Your task to perform on an android device: change timer sound Image 0: 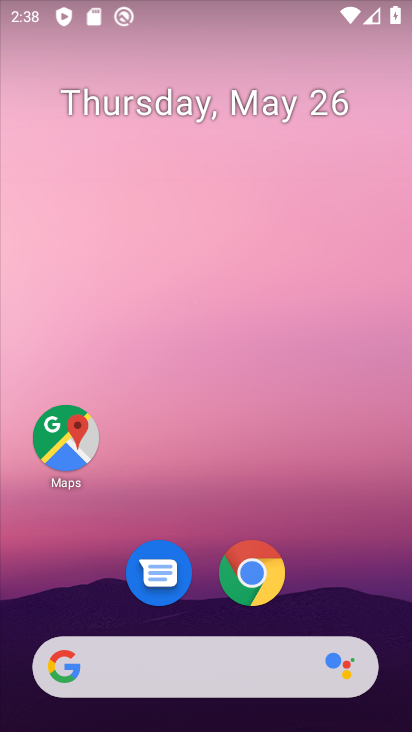
Step 0: drag from (227, 660) to (234, 151)
Your task to perform on an android device: change timer sound Image 1: 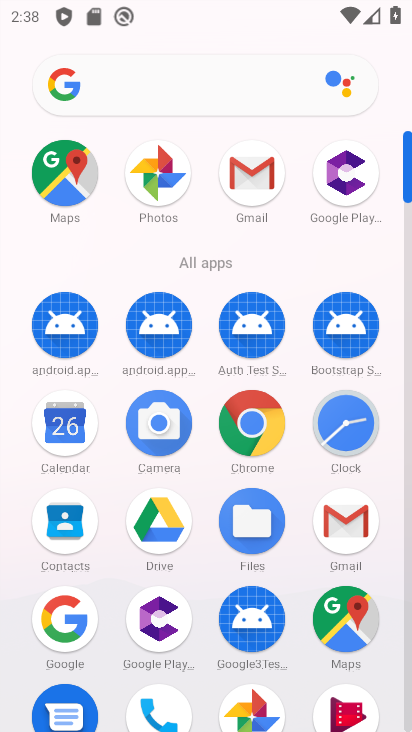
Step 1: drag from (209, 605) to (224, 184)
Your task to perform on an android device: change timer sound Image 2: 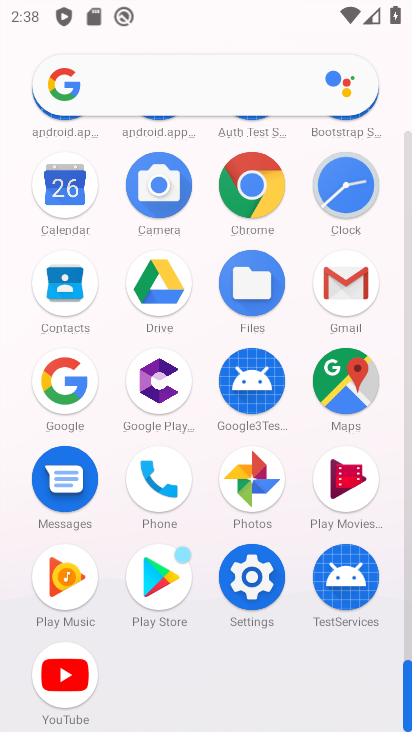
Step 2: click (363, 179)
Your task to perform on an android device: change timer sound Image 3: 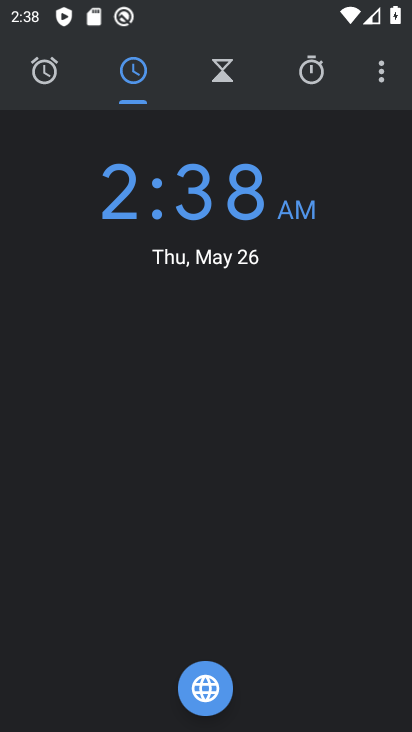
Step 3: click (376, 71)
Your task to perform on an android device: change timer sound Image 4: 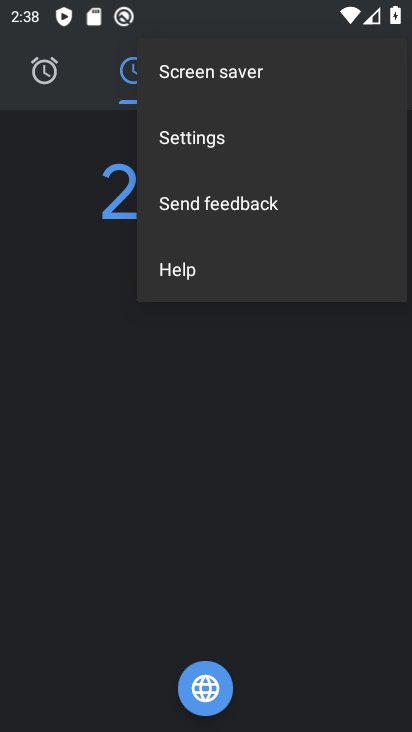
Step 4: click (200, 140)
Your task to perform on an android device: change timer sound Image 5: 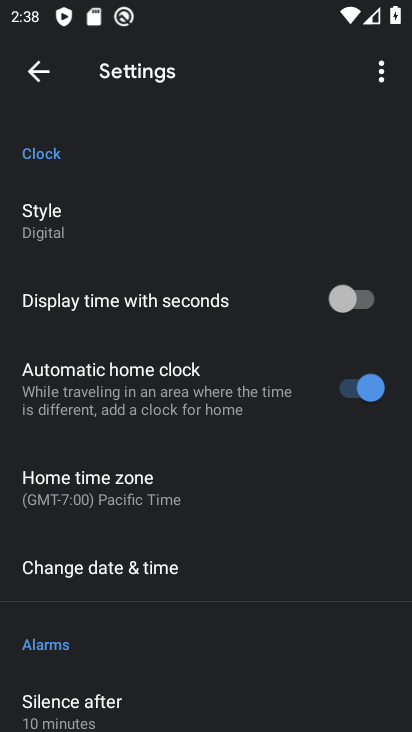
Step 5: drag from (192, 619) to (272, 7)
Your task to perform on an android device: change timer sound Image 6: 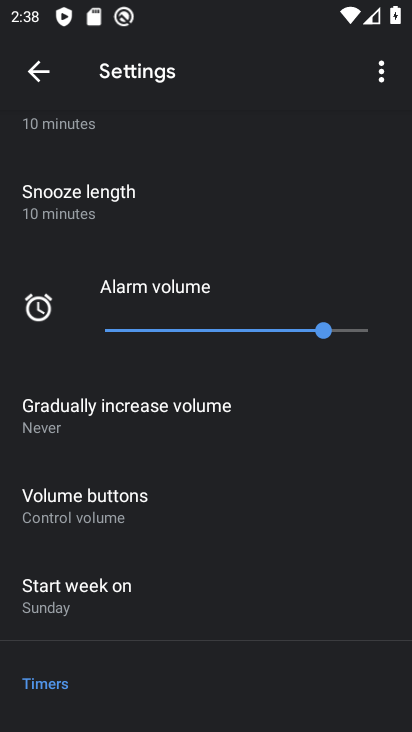
Step 6: drag from (162, 573) to (231, 42)
Your task to perform on an android device: change timer sound Image 7: 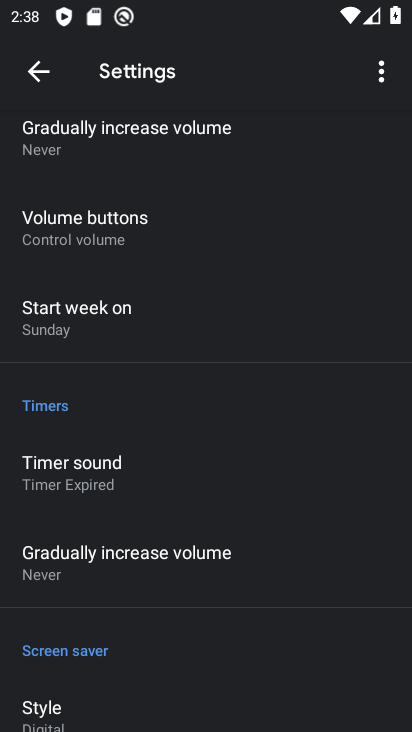
Step 7: click (99, 473)
Your task to perform on an android device: change timer sound Image 8: 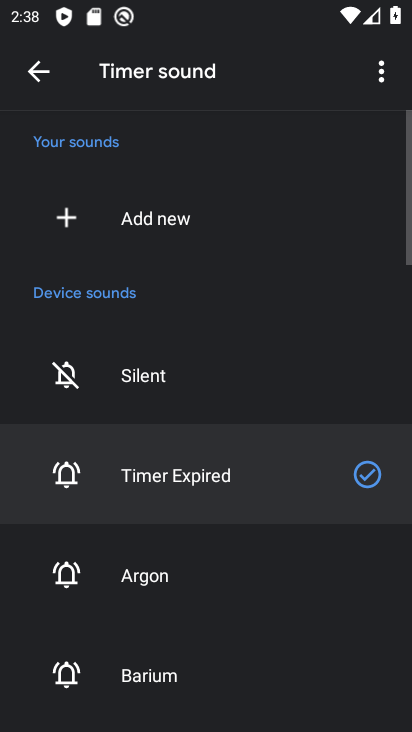
Step 8: drag from (188, 643) to (216, 189)
Your task to perform on an android device: change timer sound Image 9: 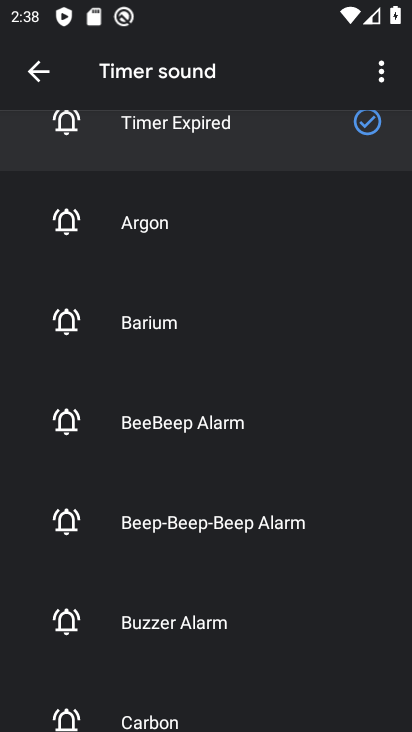
Step 9: click (172, 501)
Your task to perform on an android device: change timer sound Image 10: 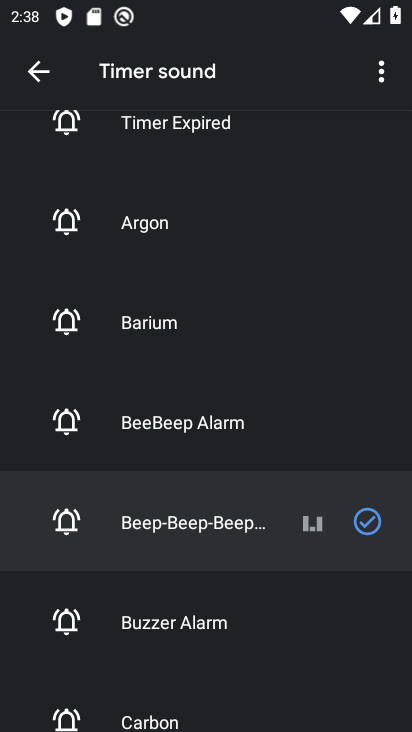
Step 10: task complete